Your task to perform on an android device: turn off notifications in google photos Image 0: 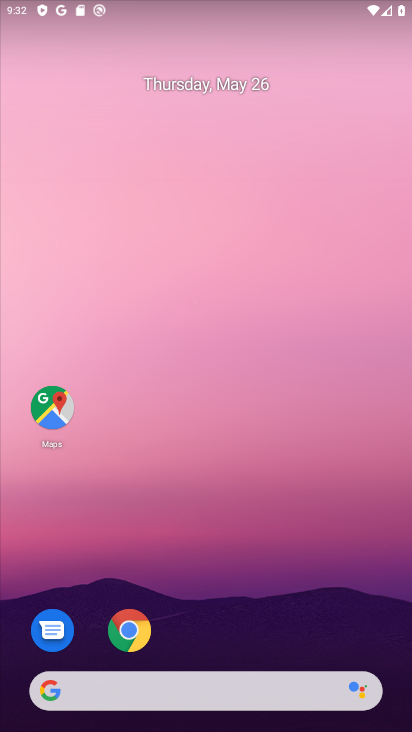
Step 0: drag from (258, 620) to (199, 26)
Your task to perform on an android device: turn off notifications in google photos Image 1: 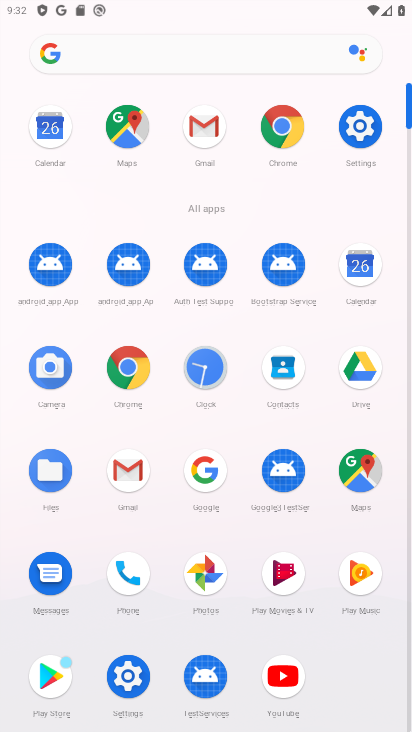
Step 1: click (199, 571)
Your task to perform on an android device: turn off notifications in google photos Image 2: 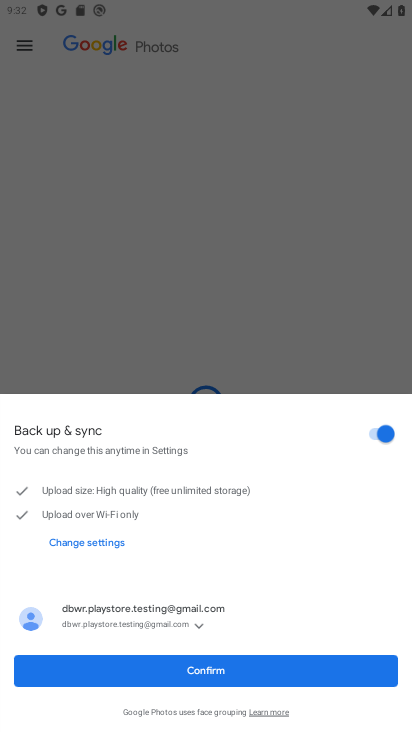
Step 2: click (24, 42)
Your task to perform on an android device: turn off notifications in google photos Image 3: 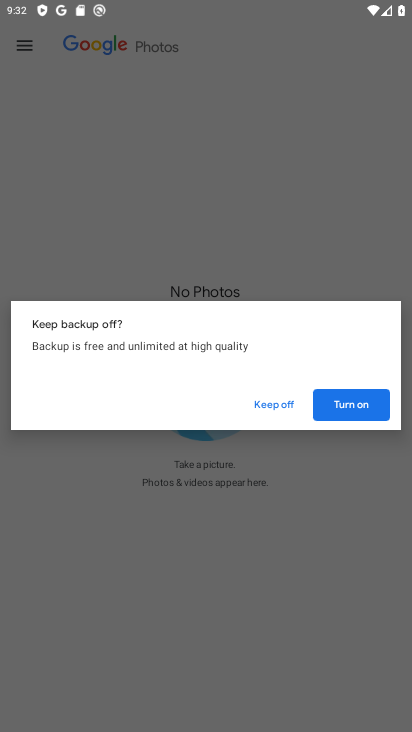
Step 3: click (341, 399)
Your task to perform on an android device: turn off notifications in google photos Image 4: 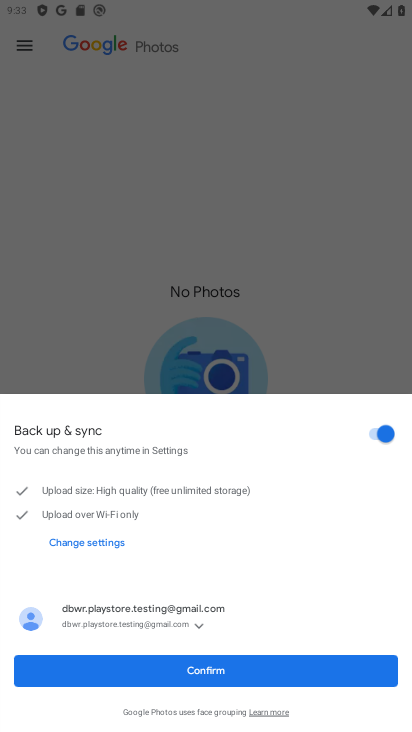
Step 4: click (129, 652)
Your task to perform on an android device: turn off notifications in google photos Image 5: 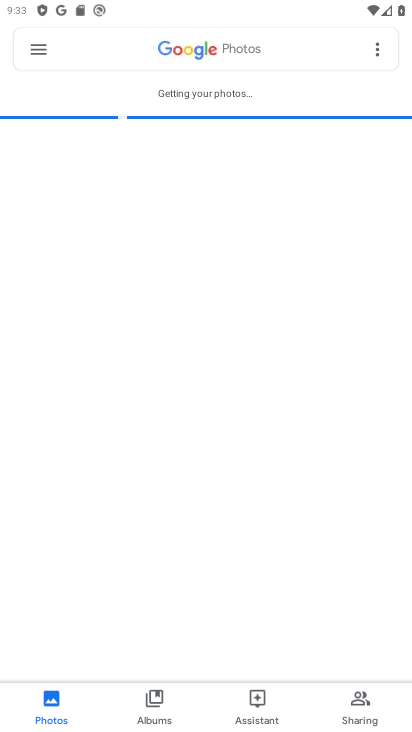
Step 5: click (33, 44)
Your task to perform on an android device: turn off notifications in google photos Image 6: 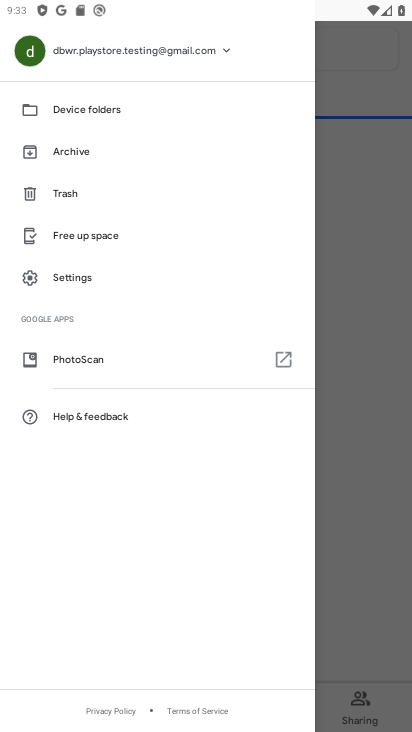
Step 6: click (33, 44)
Your task to perform on an android device: turn off notifications in google photos Image 7: 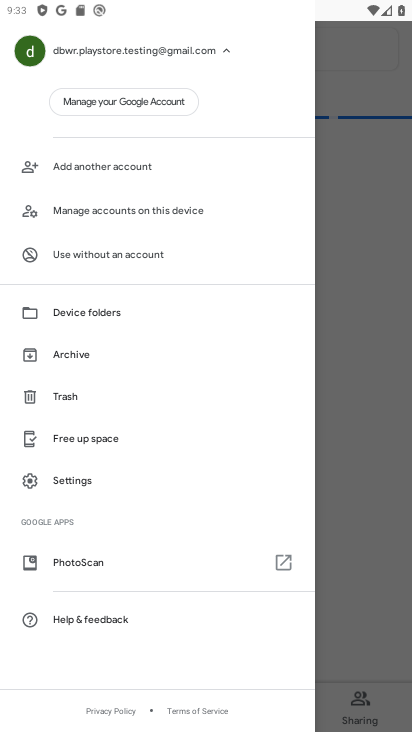
Step 7: click (44, 284)
Your task to perform on an android device: turn off notifications in google photos Image 8: 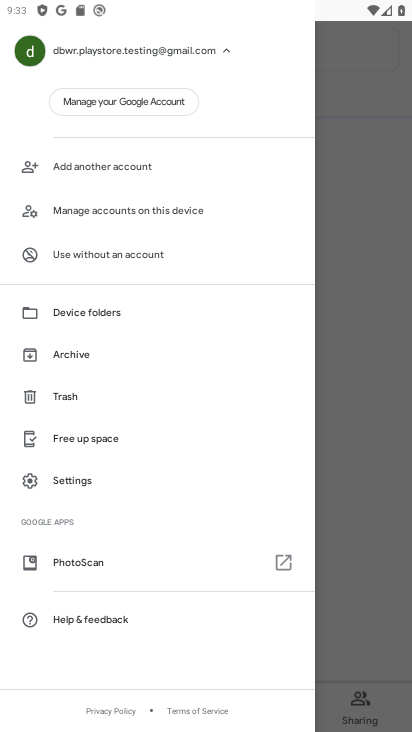
Step 8: click (84, 488)
Your task to perform on an android device: turn off notifications in google photos Image 9: 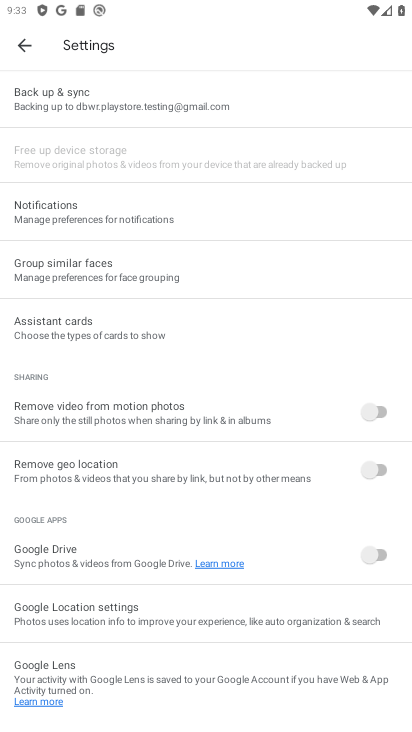
Step 9: click (75, 213)
Your task to perform on an android device: turn off notifications in google photos Image 10: 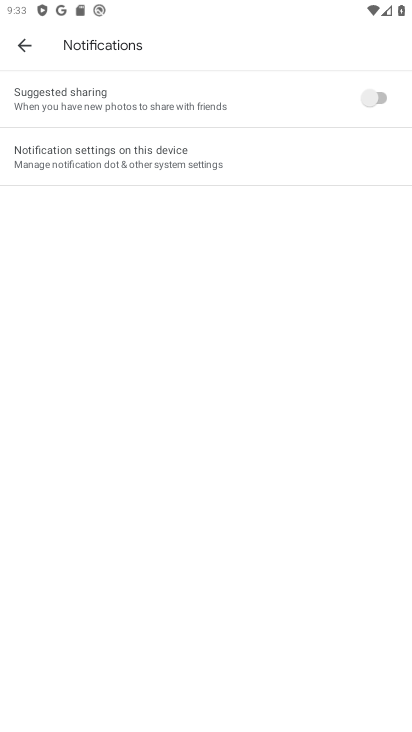
Step 10: click (269, 152)
Your task to perform on an android device: turn off notifications in google photos Image 11: 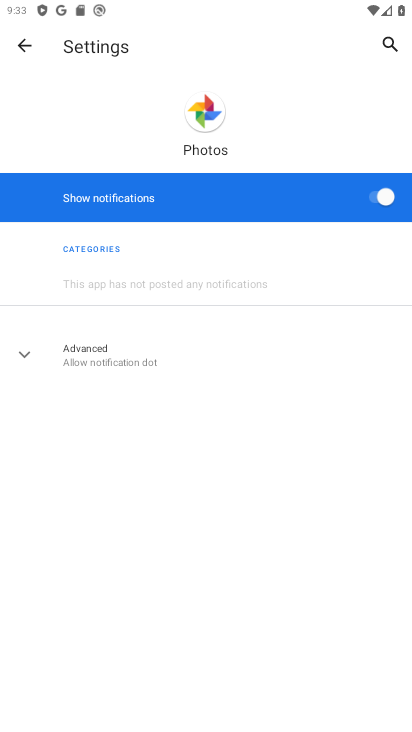
Step 11: click (379, 203)
Your task to perform on an android device: turn off notifications in google photos Image 12: 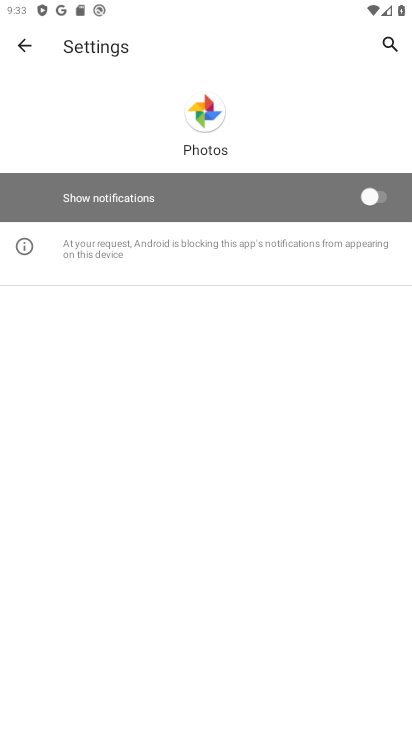
Step 12: task complete